Your task to perform on an android device: Search for seafood restaurants on Google Maps Image 0: 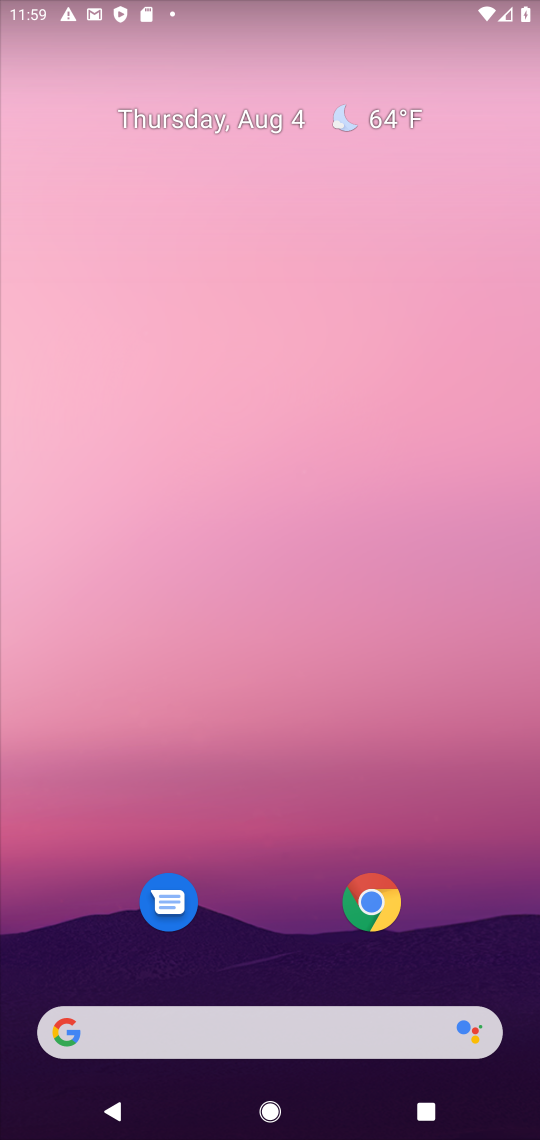
Step 0: press home button
Your task to perform on an android device: Search for seafood restaurants on Google Maps Image 1: 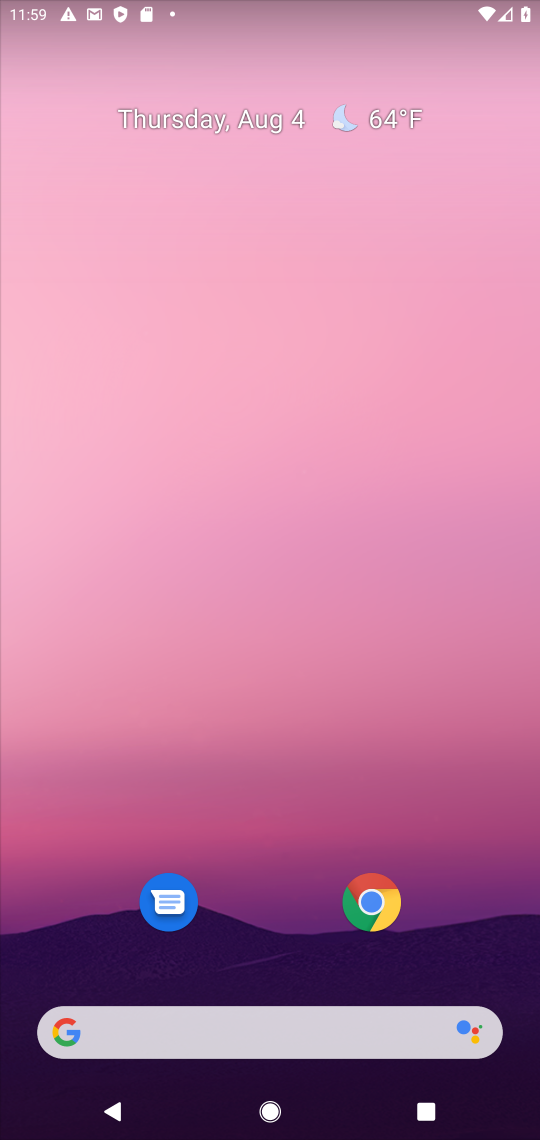
Step 1: drag from (277, 956) to (367, 144)
Your task to perform on an android device: Search for seafood restaurants on Google Maps Image 2: 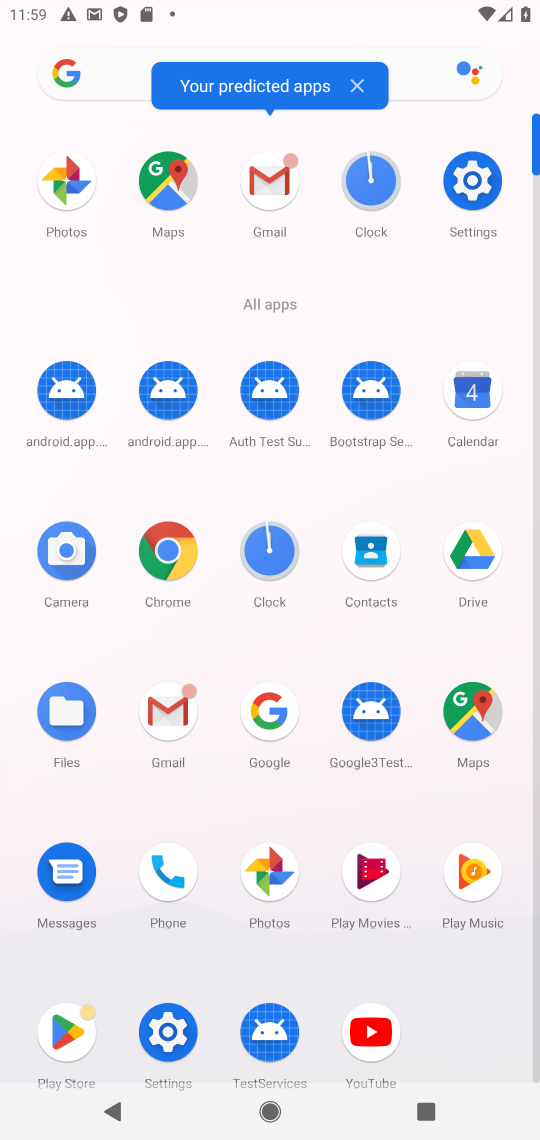
Step 2: click (166, 172)
Your task to perform on an android device: Search for seafood restaurants on Google Maps Image 3: 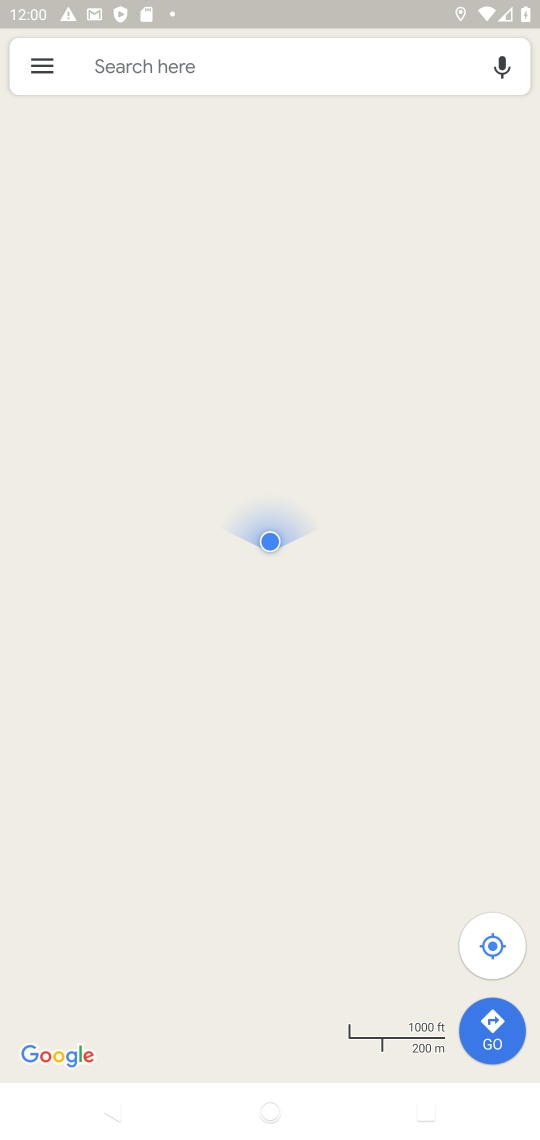
Step 3: click (154, 63)
Your task to perform on an android device: Search for seafood restaurants on Google Maps Image 4: 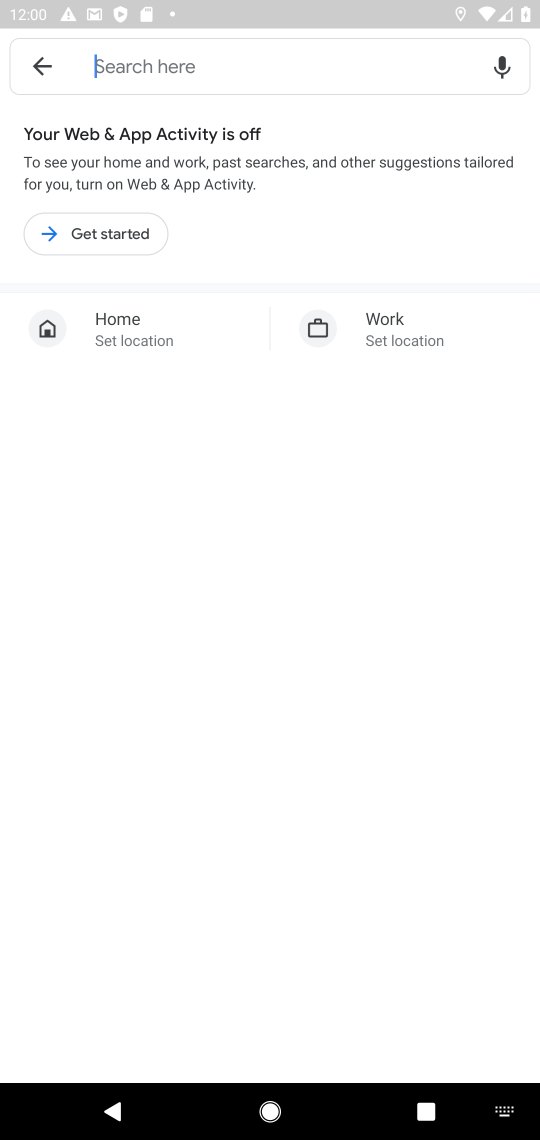
Step 4: type "seafood"
Your task to perform on an android device: Search for seafood restaurants on Google Maps Image 5: 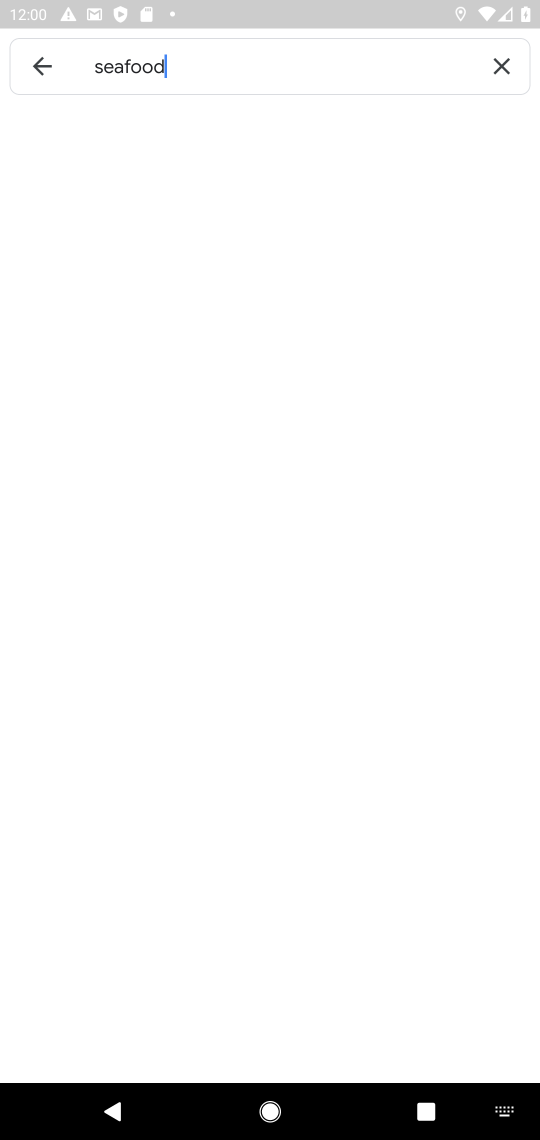
Step 5: type ""
Your task to perform on an android device: Search for seafood restaurants on Google Maps Image 6: 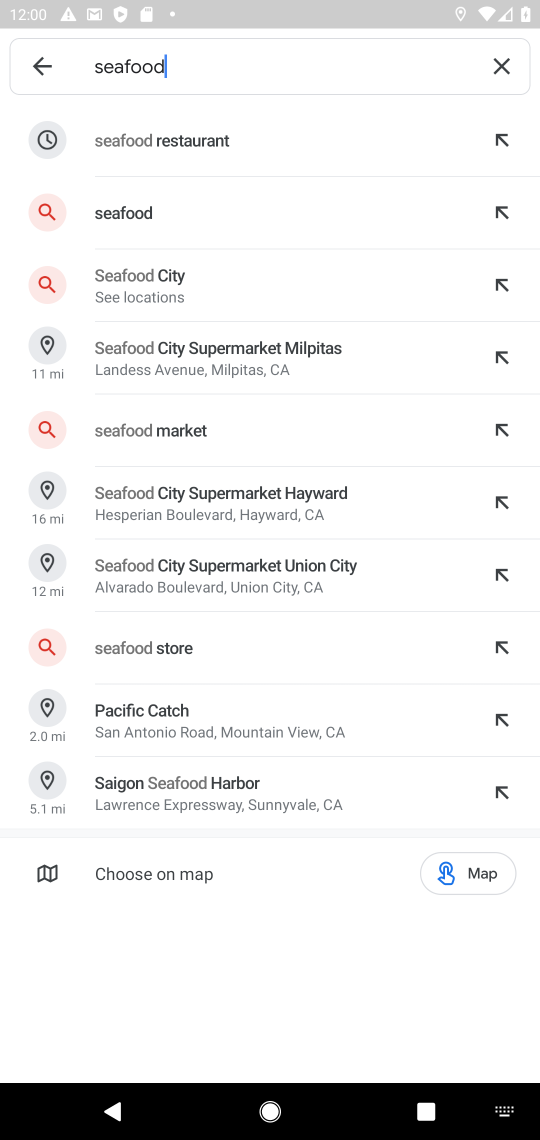
Step 6: click (215, 152)
Your task to perform on an android device: Search for seafood restaurants on Google Maps Image 7: 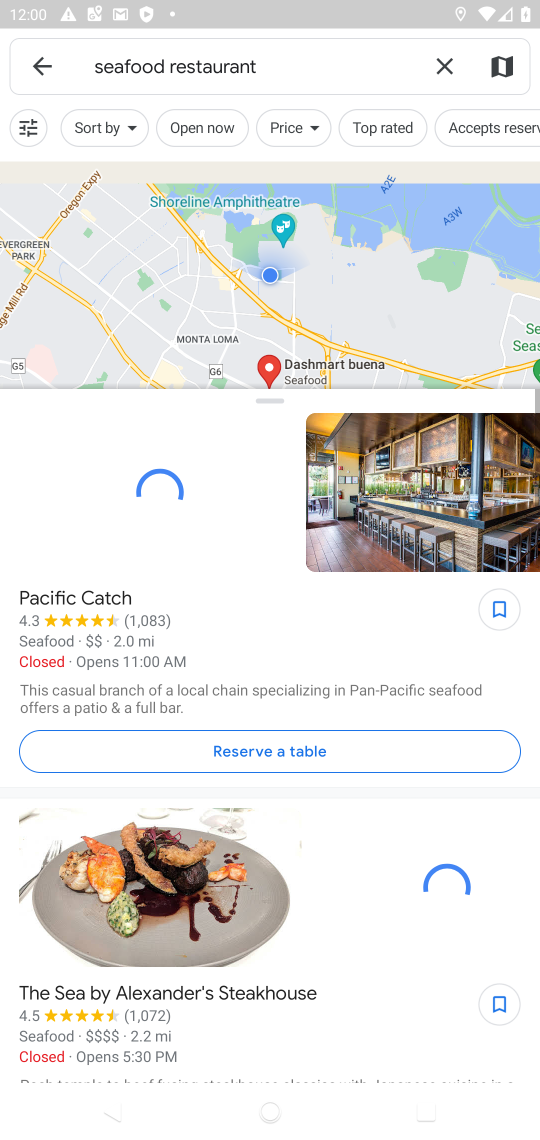
Step 7: task complete